Your task to perform on an android device: star an email in the gmail app Image 0: 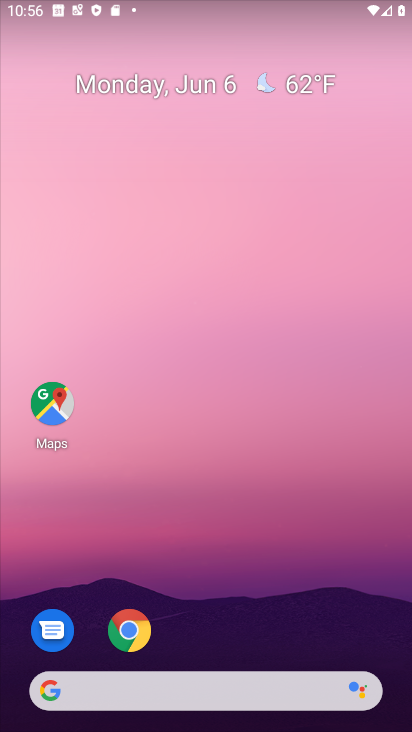
Step 0: drag from (322, 588) to (298, 153)
Your task to perform on an android device: star an email in the gmail app Image 1: 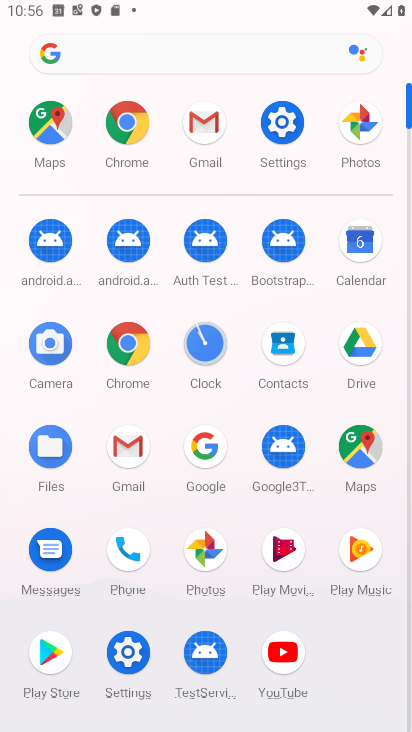
Step 1: click (112, 464)
Your task to perform on an android device: star an email in the gmail app Image 2: 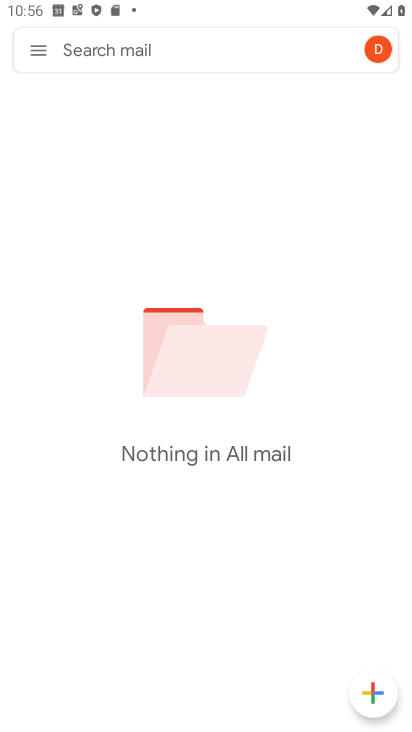
Step 2: click (45, 55)
Your task to perform on an android device: star an email in the gmail app Image 3: 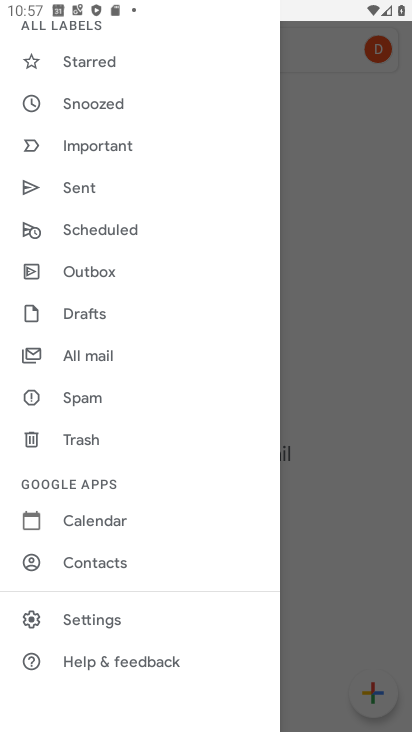
Step 3: click (117, 354)
Your task to perform on an android device: star an email in the gmail app Image 4: 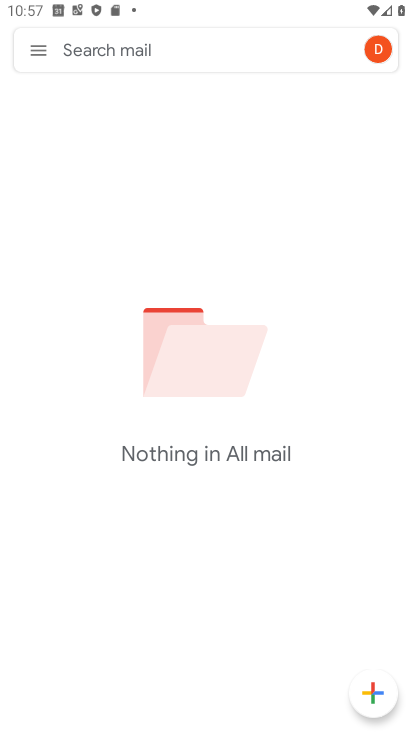
Step 4: task complete